Your task to perform on an android device: Open calendar and show me the fourth week of next month Image 0: 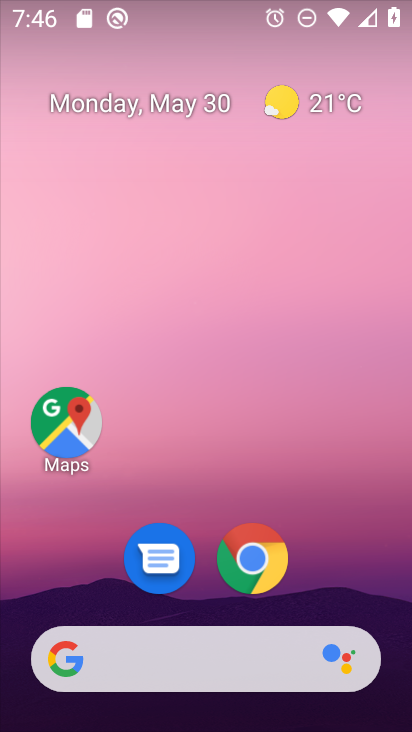
Step 0: drag from (340, 544) to (211, 111)
Your task to perform on an android device: Open calendar and show me the fourth week of next month Image 1: 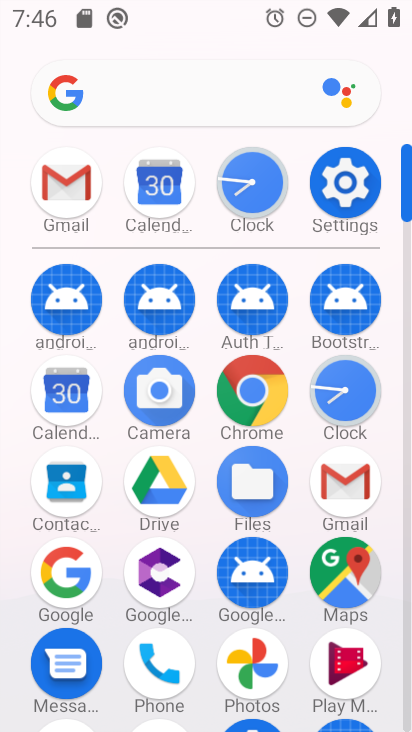
Step 1: click (67, 392)
Your task to perform on an android device: Open calendar and show me the fourth week of next month Image 2: 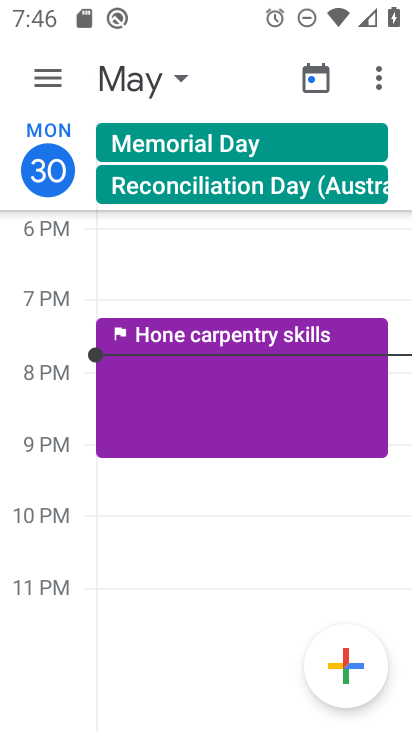
Step 2: click (54, 65)
Your task to perform on an android device: Open calendar and show me the fourth week of next month Image 3: 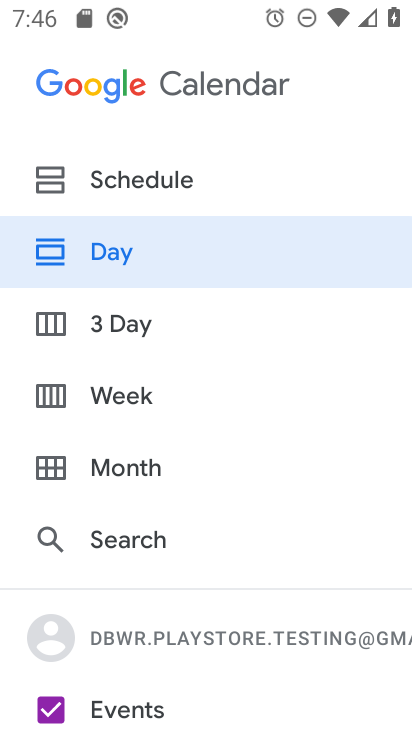
Step 3: click (117, 394)
Your task to perform on an android device: Open calendar and show me the fourth week of next month Image 4: 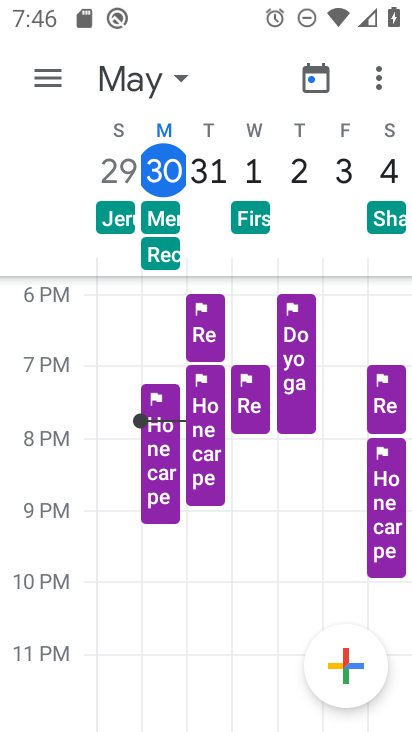
Step 4: click (176, 70)
Your task to perform on an android device: Open calendar and show me the fourth week of next month Image 5: 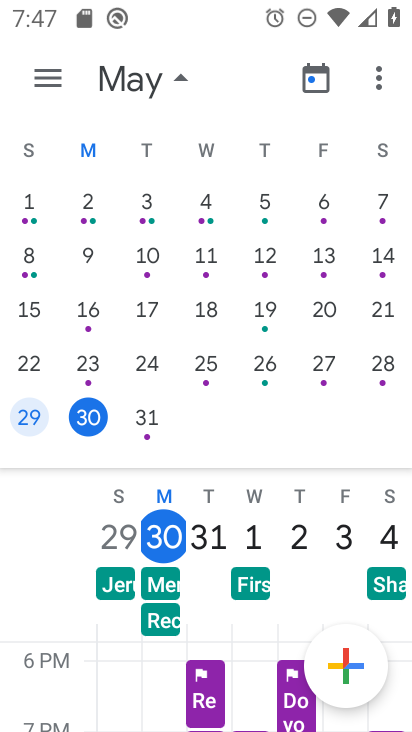
Step 5: click (377, 290)
Your task to perform on an android device: Open calendar and show me the fourth week of next month Image 6: 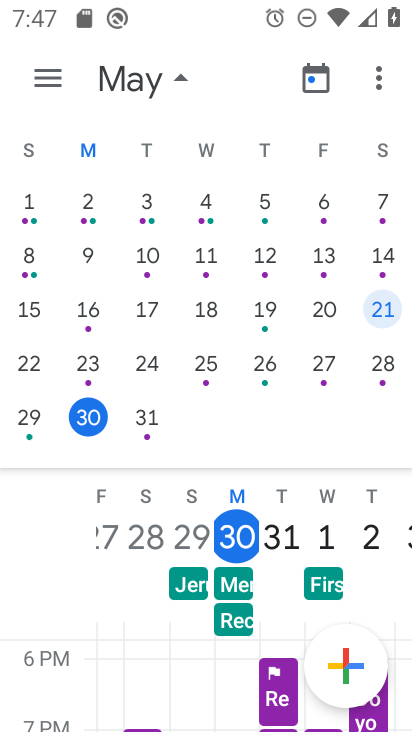
Step 6: drag from (377, 290) to (25, 282)
Your task to perform on an android device: Open calendar and show me the fourth week of next month Image 7: 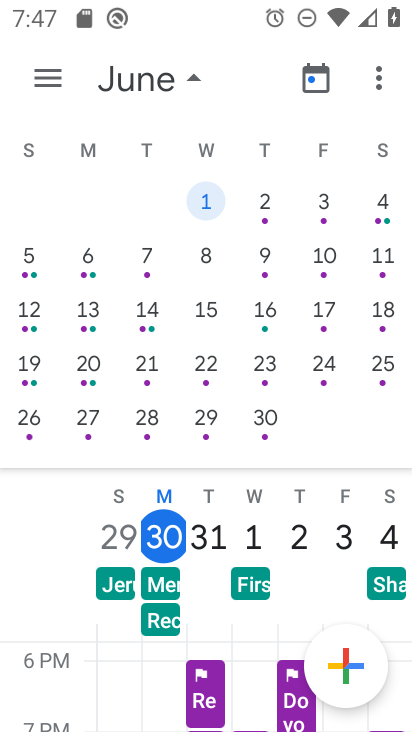
Step 7: click (214, 364)
Your task to perform on an android device: Open calendar and show me the fourth week of next month Image 8: 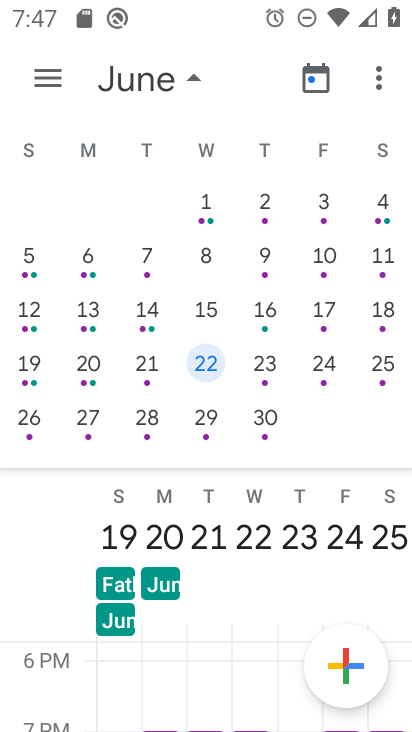
Step 8: task complete